Your task to perform on an android device: check data usage Image 0: 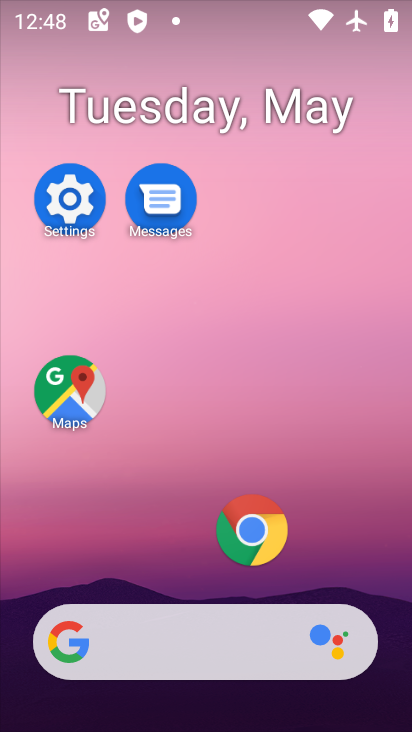
Step 0: drag from (171, 536) to (278, 108)
Your task to perform on an android device: check data usage Image 1: 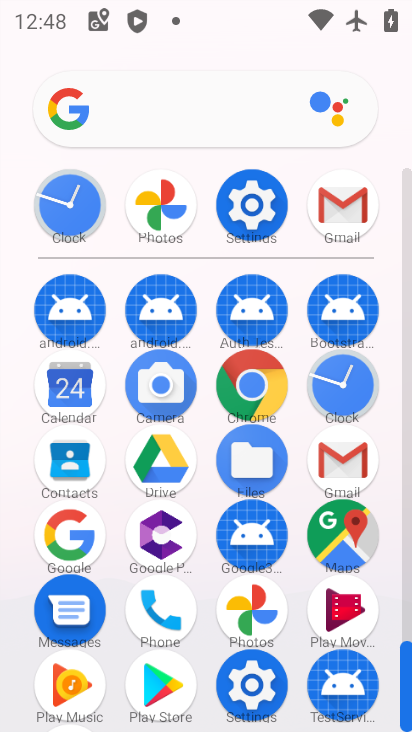
Step 1: click (261, 216)
Your task to perform on an android device: check data usage Image 2: 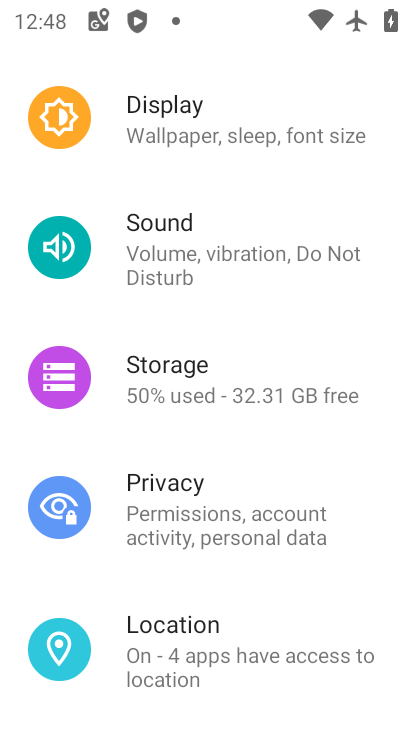
Step 2: drag from (225, 261) to (283, 668)
Your task to perform on an android device: check data usage Image 3: 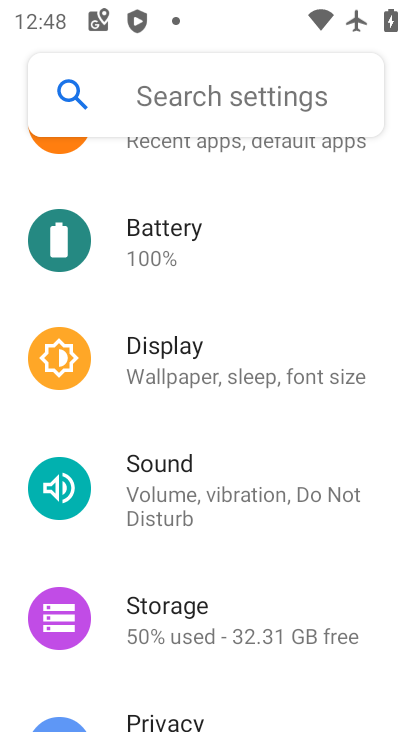
Step 3: drag from (233, 242) to (269, 679)
Your task to perform on an android device: check data usage Image 4: 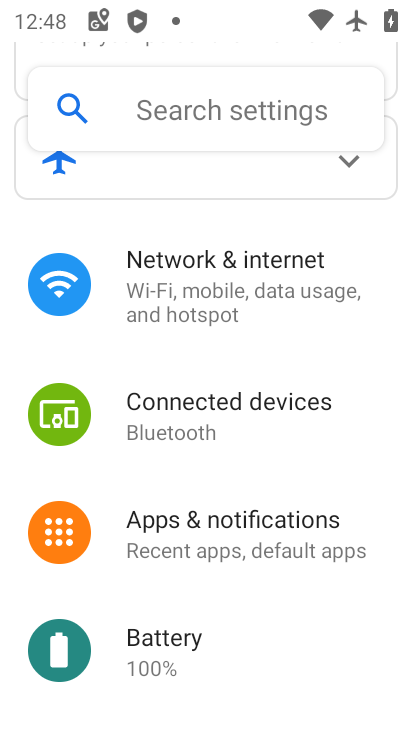
Step 4: click (238, 286)
Your task to perform on an android device: check data usage Image 5: 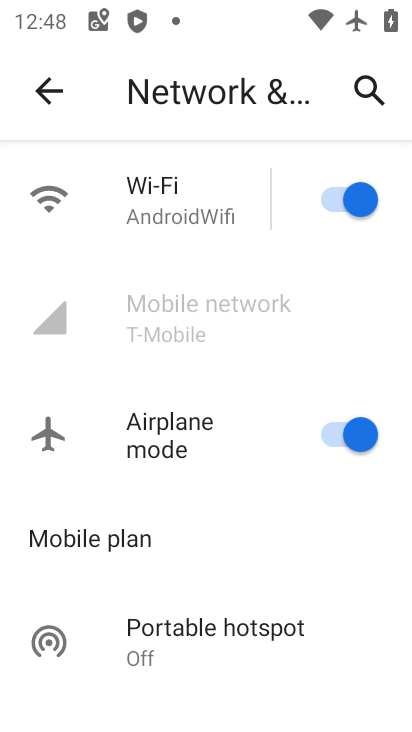
Step 5: click (224, 334)
Your task to perform on an android device: check data usage Image 6: 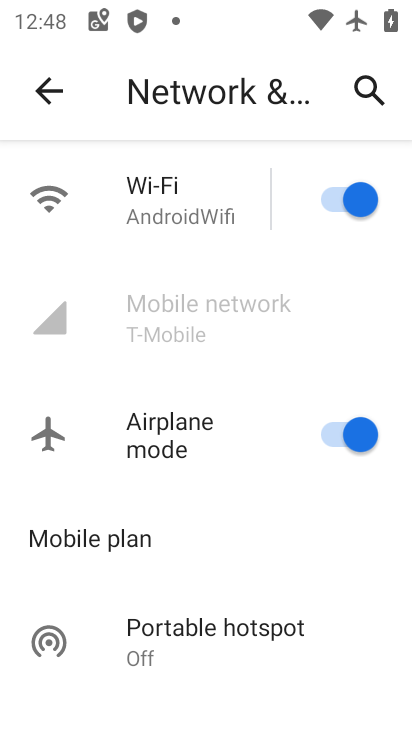
Step 6: drag from (163, 612) to (242, 269)
Your task to perform on an android device: check data usage Image 7: 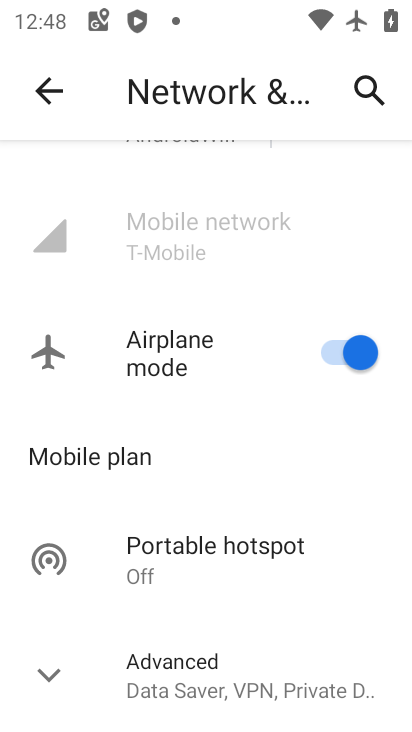
Step 7: click (237, 681)
Your task to perform on an android device: check data usage Image 8: 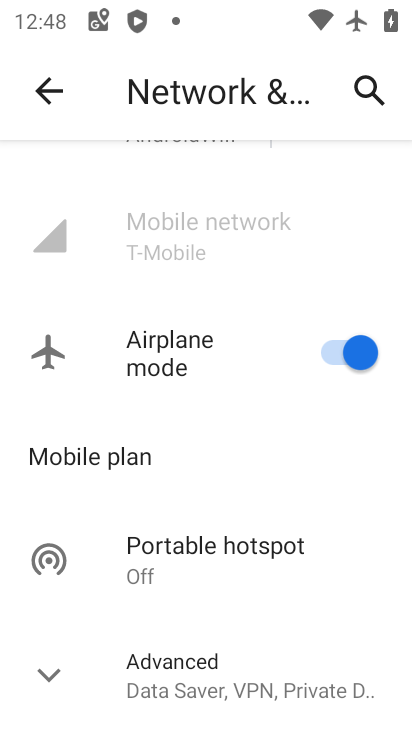
Step 8: drag from (226, 639) to (186, 212)
Your task to perform on an android device: check data usage Image 9: 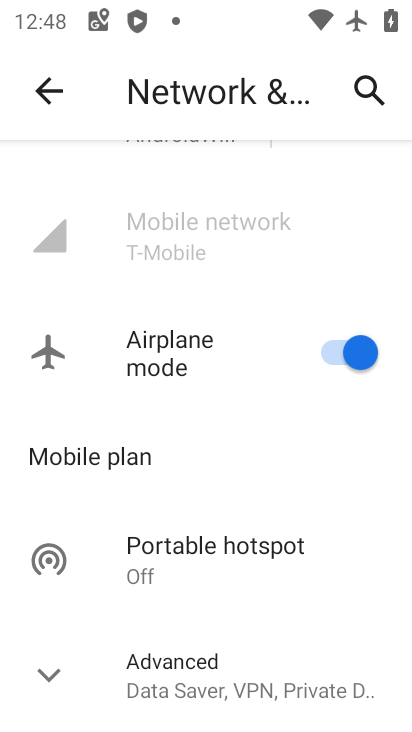
Step 9: click (220, 665)
Your task to perform on an android device: check data usage Image 10: 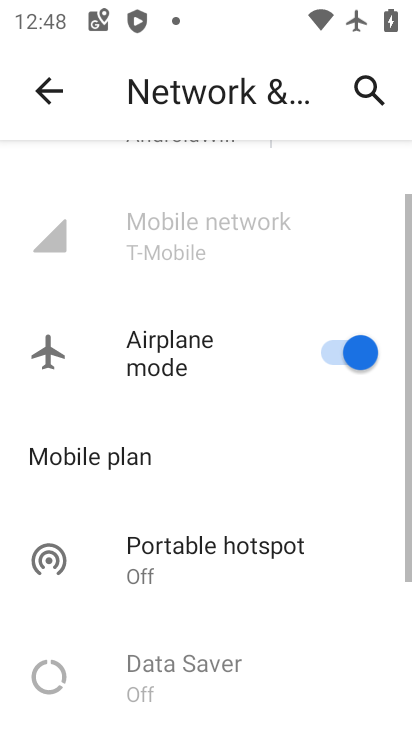
Step 10: task complete